Your task to perform on an android device: Open settings on Google Maps Image 0: 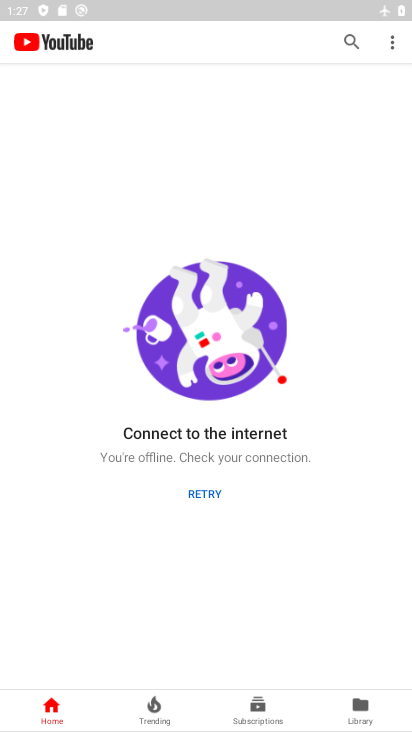
Step 0: press home button
Your task to perform on an android device: Open settings on Google Maps Image 1: 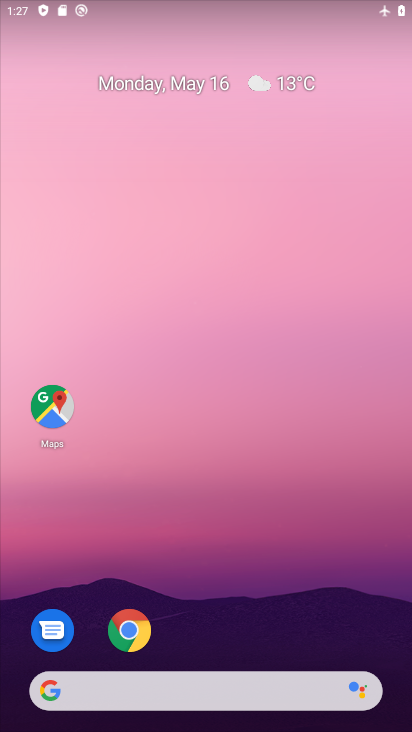
Step 1: click (32, 417)
Your task to perform on an android device: Open settings on Google Maps Image 2: 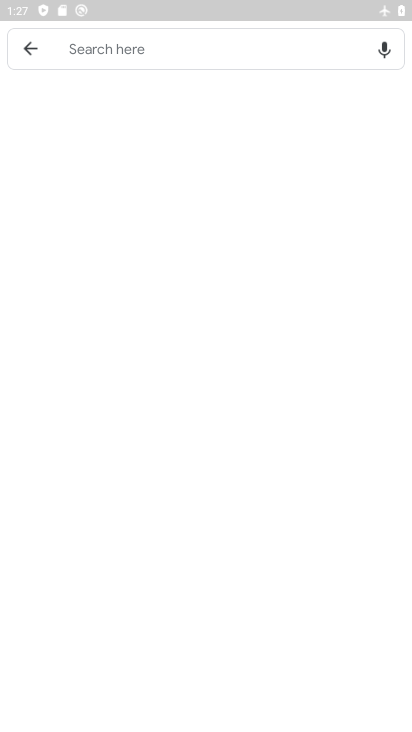
Step 2: click (148, 46)
Your task to perform on an android device: Open settings on Google Maps Image 3: 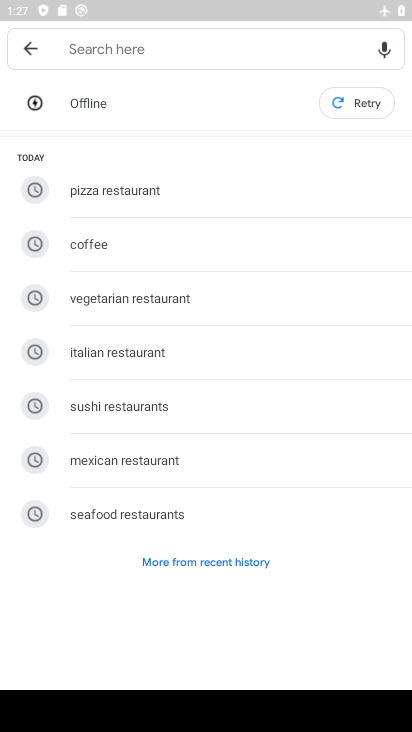
Step 3: click (27, 36)
Your task to perform on an android device: Open settings on Google Maps Image 4: 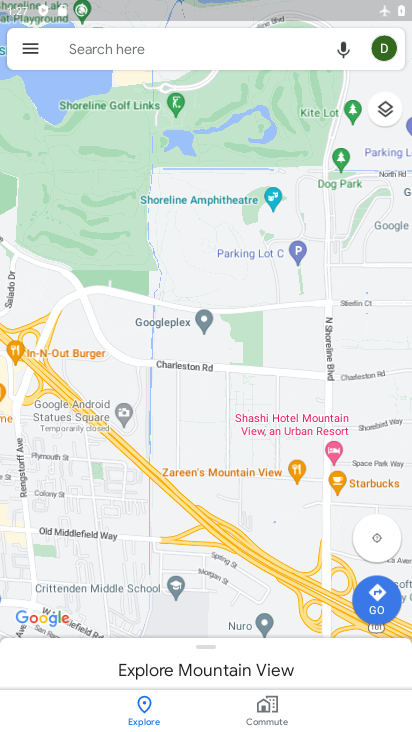
Step 4: click (28, 37)
Your task to perform on an android device: Open settings on Google Maps Image 5: 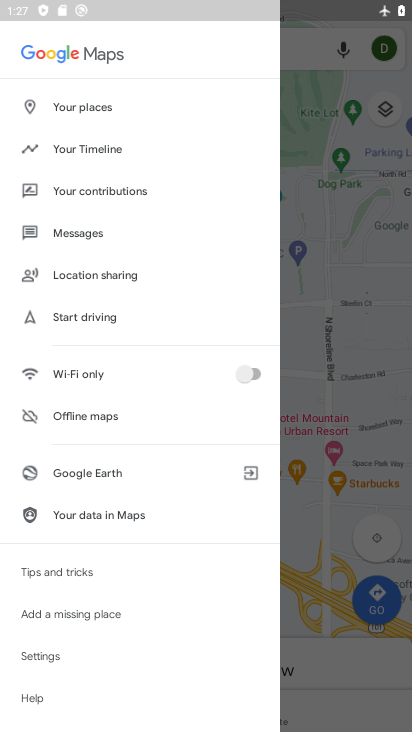
Step 5: click (85, 661)
Your task to perform on an android device: Open settings on Google Maps Image 6: 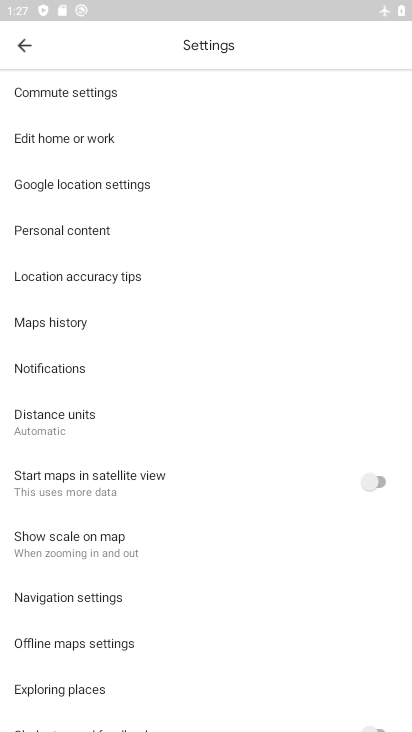
Step 6: task complete